Your task to perform on an android device: Go to Google Image 0: 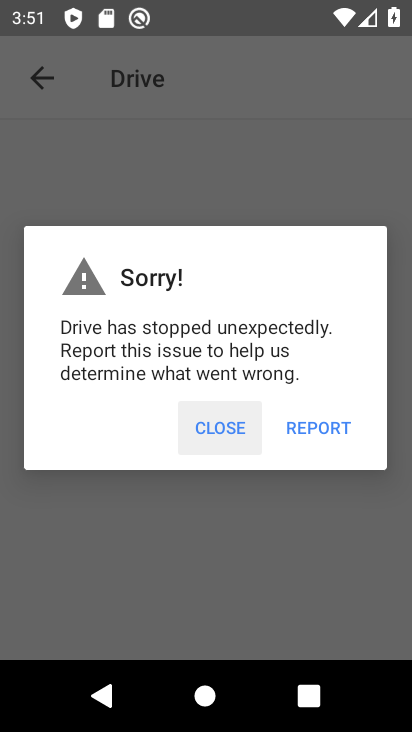
Step 0: press back button
Your task to perform on an android device: Go to Google Image 1: 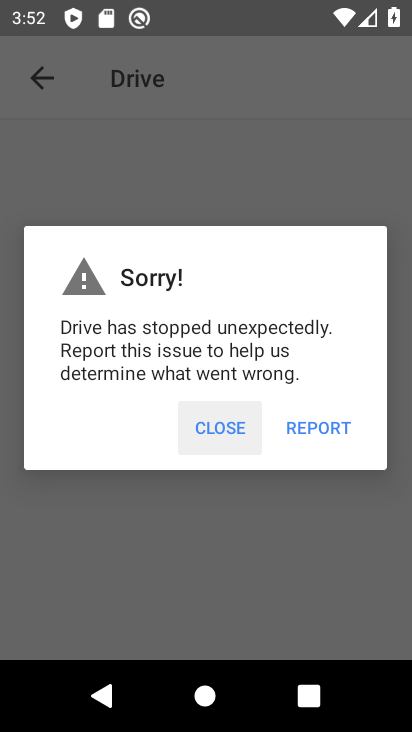
Step 1: press back button
Your task to perform on an android device: Go to Google Image 2: 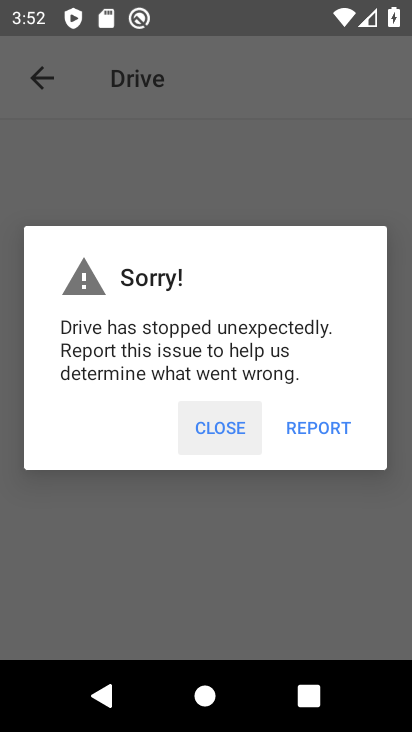
Step 2: press home button
Your task to perform on an android device: Go to Google Image 3: 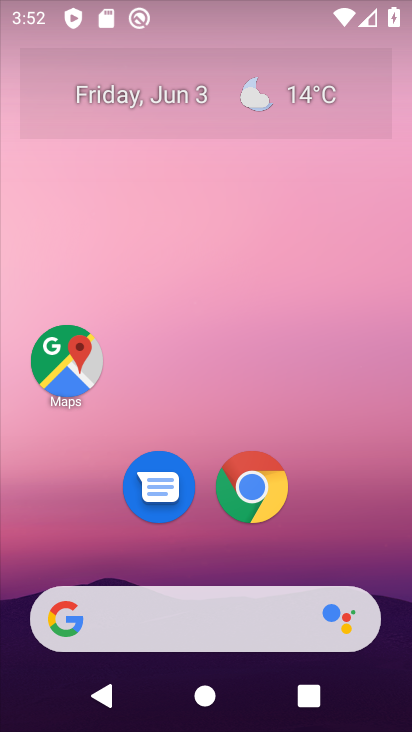
Step 3: drag from (211, 545) to (207, 75)
Your task to perform on an android device: Go to Google Image 4: 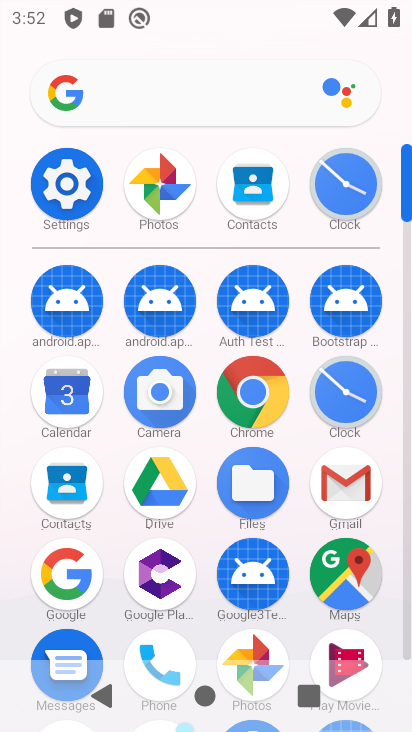
Step 4: click (63, 585)
Your task to perform on an android device: Go to Google Image 5: 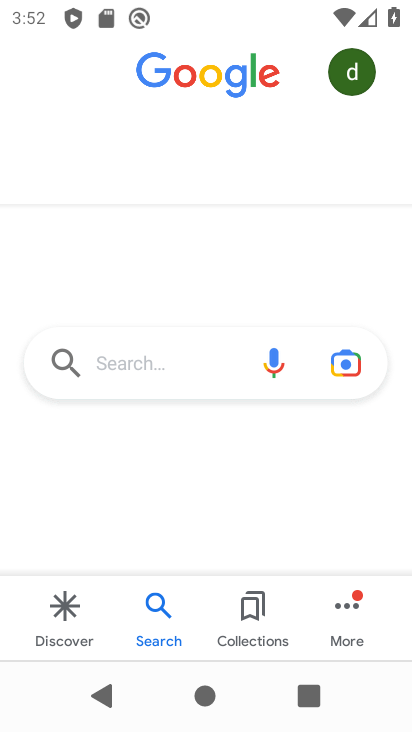
Step 5: task complete